Your task to perform on an android device: Open calendar and show me the first week of next month Image 0: 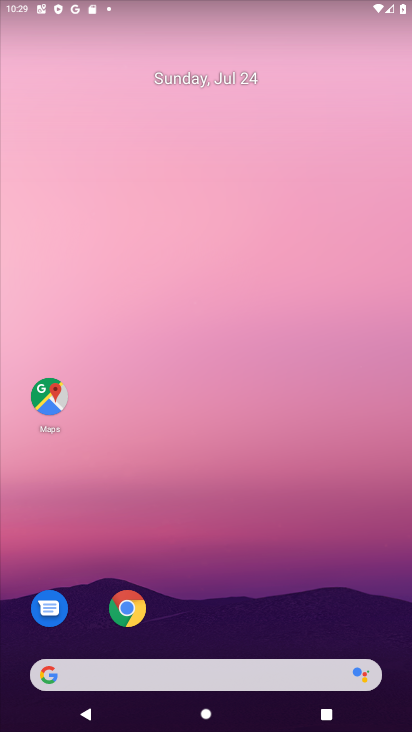
Step 0: press home button
Your task to perform on an android device: Open calendar and show me the first week of next month Image 1: 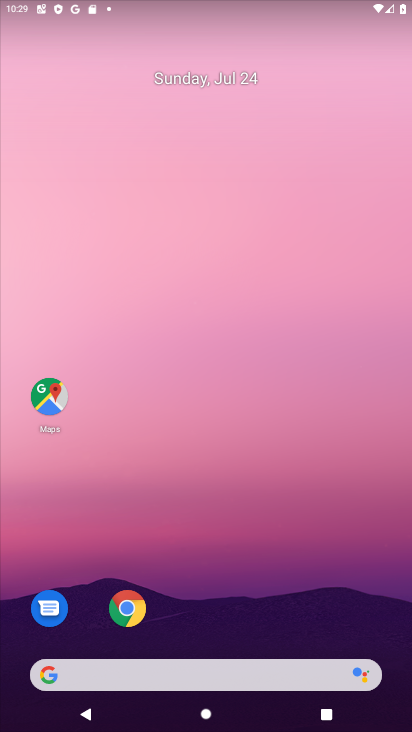
Step 1: drag from (207, 617) to (249, 52)
Your task to perform on an android device: Open calendar and show me the first week of next month Image 2: 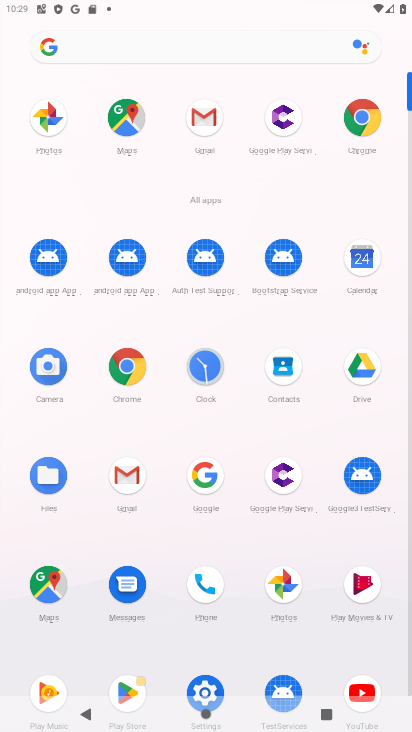
Step 2: click (360, 253)
Your task to perform on an android device: Open calendar and show me the first week of next month Image 3: 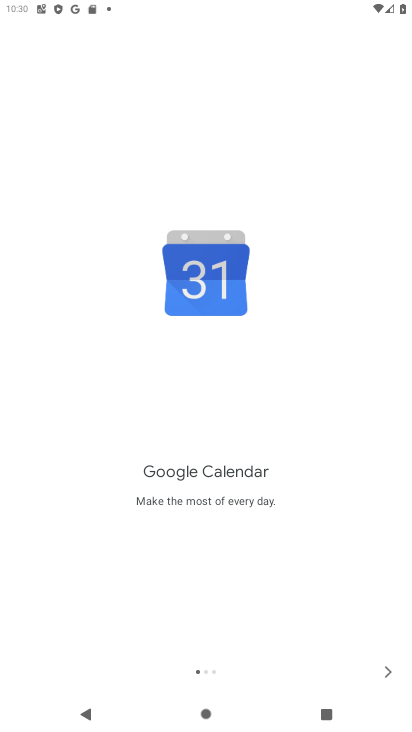
Step 3: click (387, 668)
Your task to perform on an android device: Open calendar and show me the first week of next month Image 4: 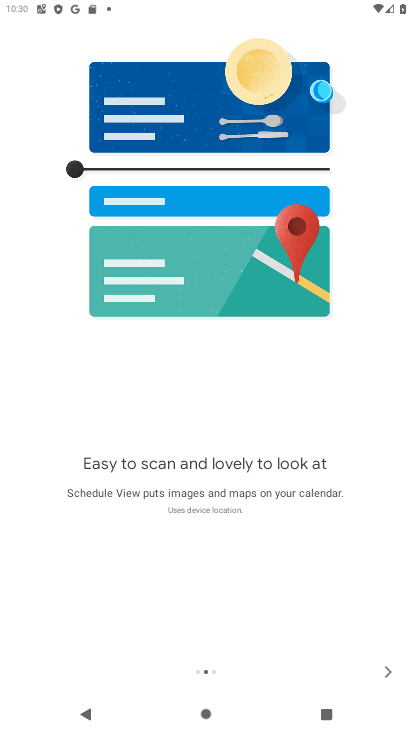
Step 4: click (386, 668)
Your task to perform on an android device: Open calendar and show me the first week of next month Image 5: 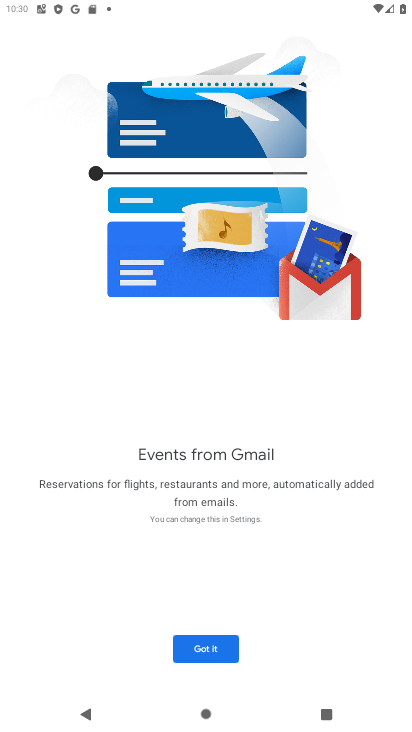
Step 5: click (203, 653)
Your task to perform on an android device: Open calendar and show me the first week of next month Image 6: 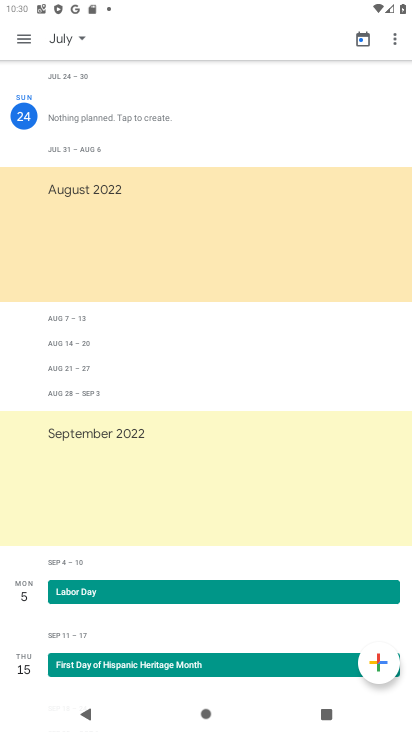
Step 6: click (78, 42)
Your task to perform on an android device: Open calendar and show me the first week of next month Image 7: 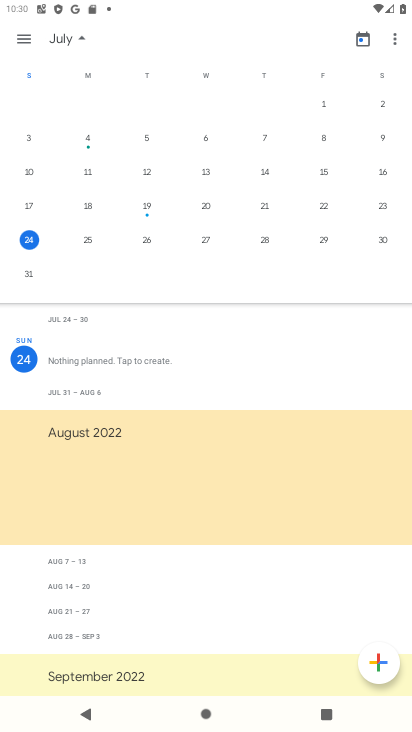
Step 7: click (79, 38)
Your task to perform on an android device: Open calendar and show me the first week of next month Image 8: 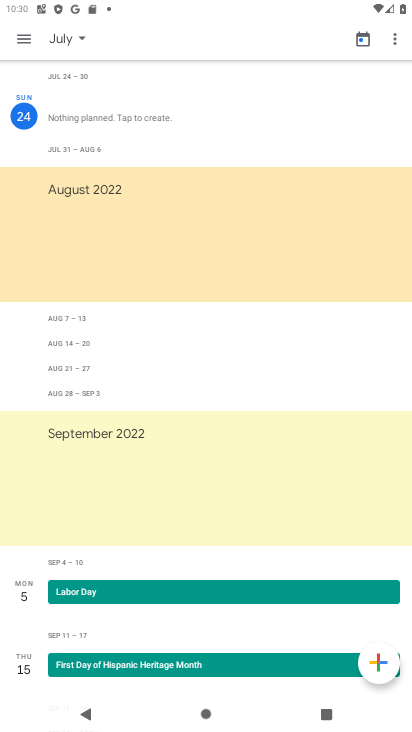
Step 8: click (79, 38)
Your task to perform on an android device: Open calendar and show me the first week of next month Image 9: 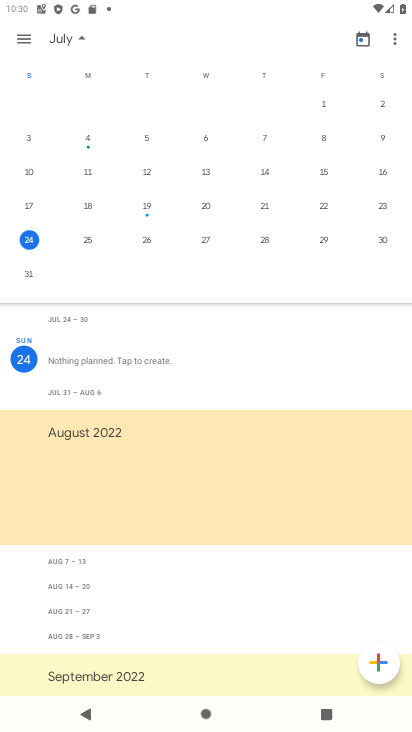
Step 9: drag from (376, 192) to (63, 173)
Your task to perform on an android device: Open calendar and show me the first week of next month Image 10: 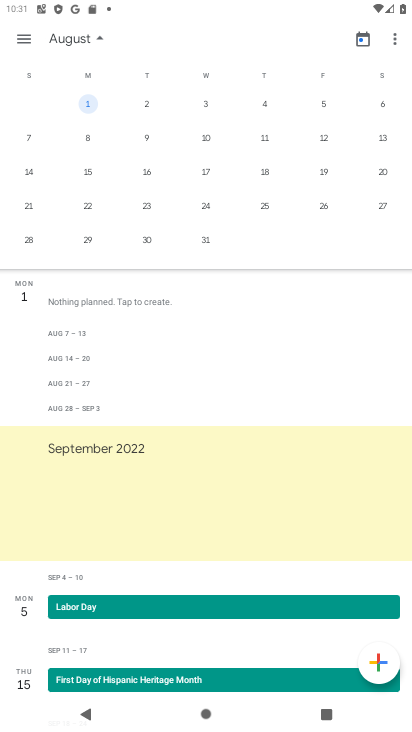
Step 10: click (21, 169)
Your task to perform on an android device: Open calendar and show me the first week of next month Image 11: 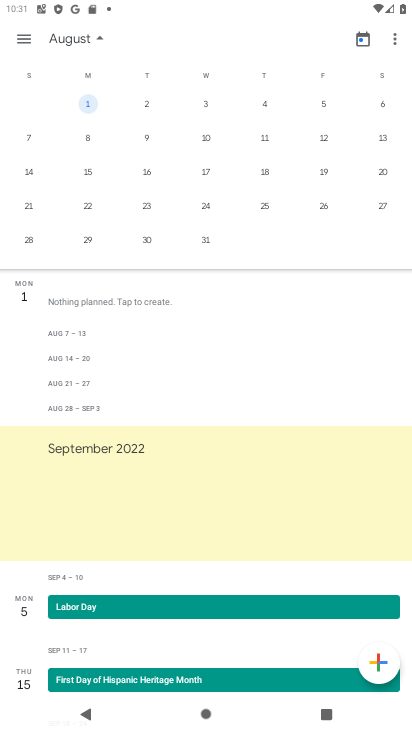
Step 11: click (85, 100)
Your task to perform on an android device: Open calendar and show me the first week of next month Image 12: 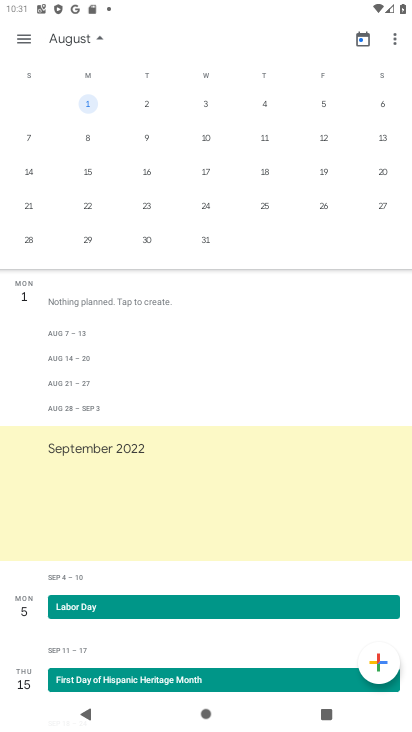
Step 12: click (85, 102)
Your task to perform on an android device: Open calendar and show me the first week of next month Image 13: 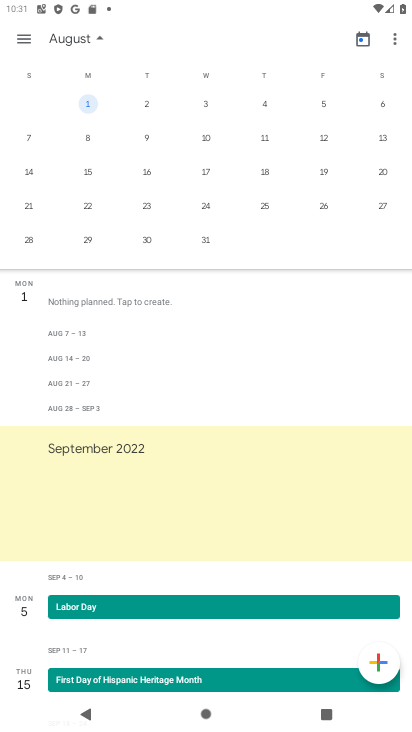
Step 13: click (88, 34)
Your task to perform on an android device: Open calendar and show me the first week of next month Image 14: 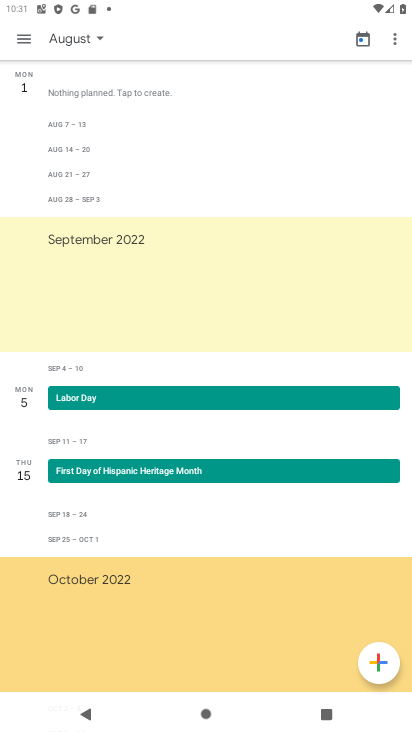
Step 14: task complete